Your task to perform on an android device: open app "Reddit" (install if not already installed) Image 0: 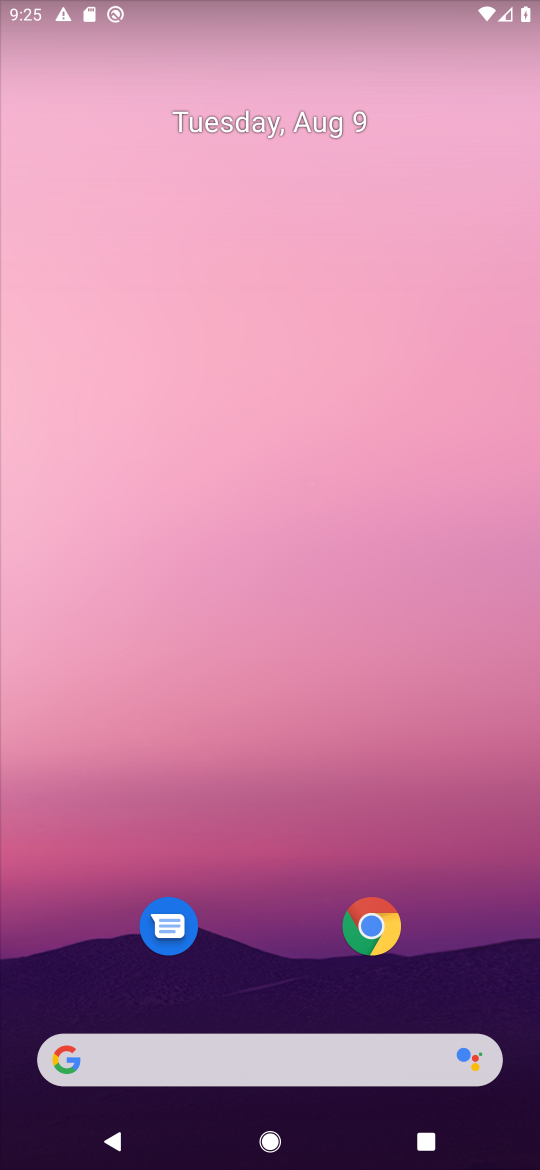
Step 0: drag from (237, 961) to (283, 2)
Your task to perform on an android device: open app "Reddit" (install if not already installed) Image 1: 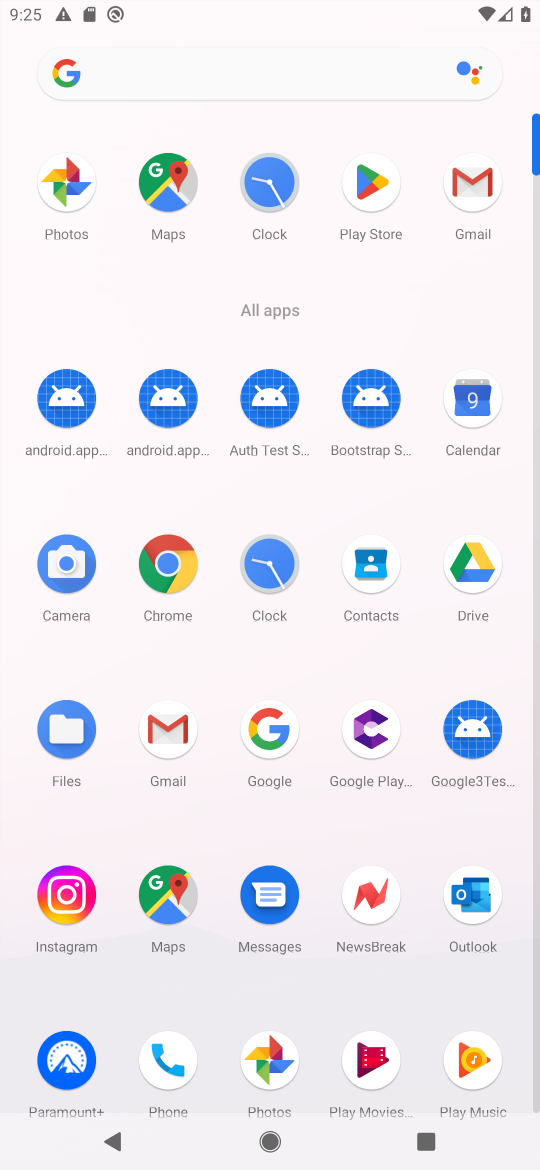
Step 1: click (381, 200)
Your task to perform on an android device: open app "Reddit" (install if not already installed) Image 2: 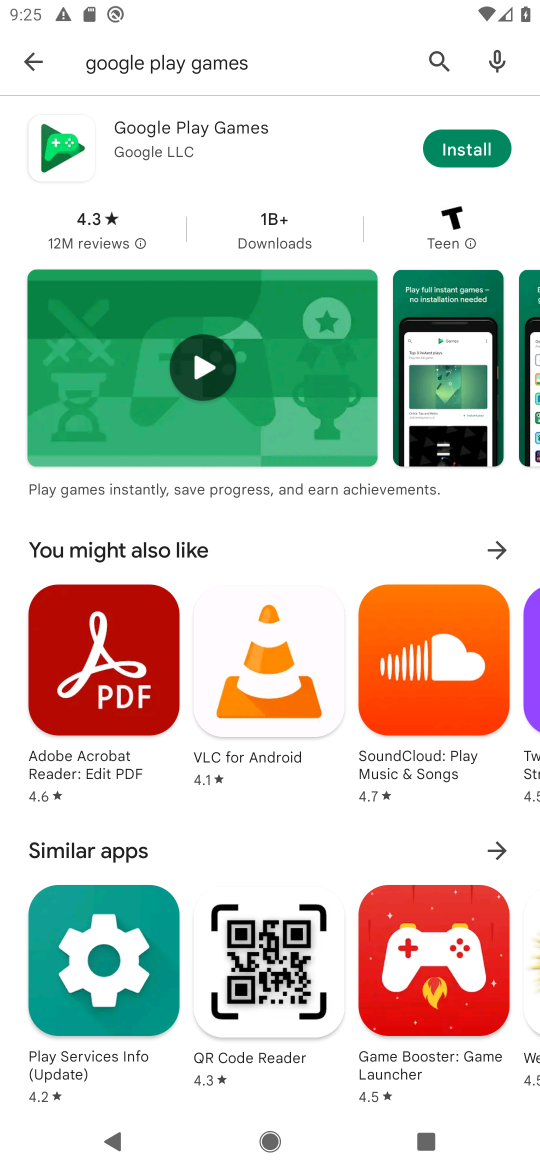
Step 2: click (195, 53)
Your task to perform on an android device: open app "Reddit" (install if not already installed) Image 3: 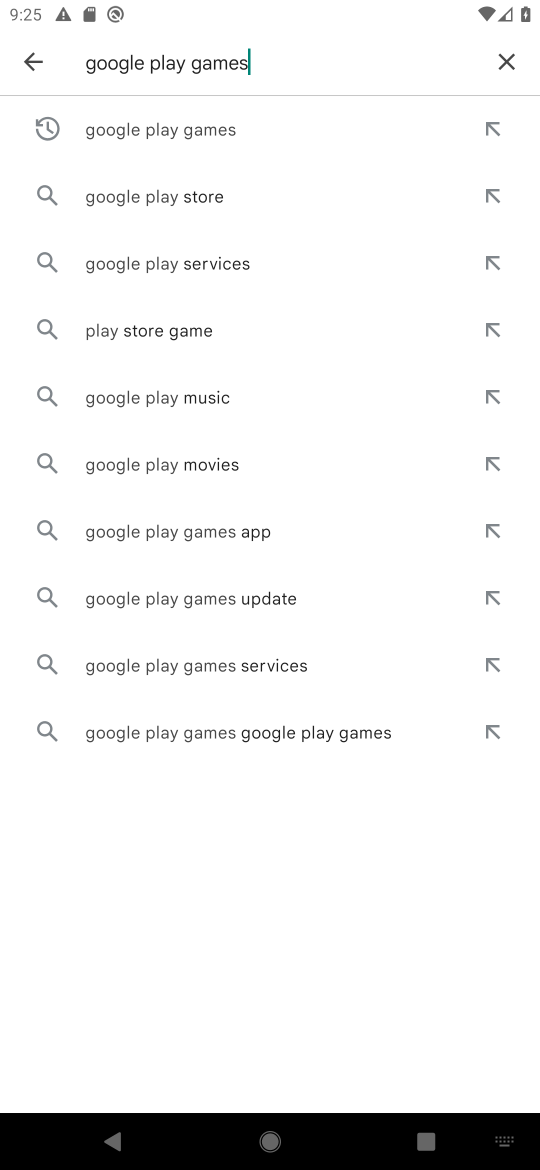
Step 3: click (502, 58)
Your task to perform on an android device: open app "Reddit" (install if not already installed) Image 4: 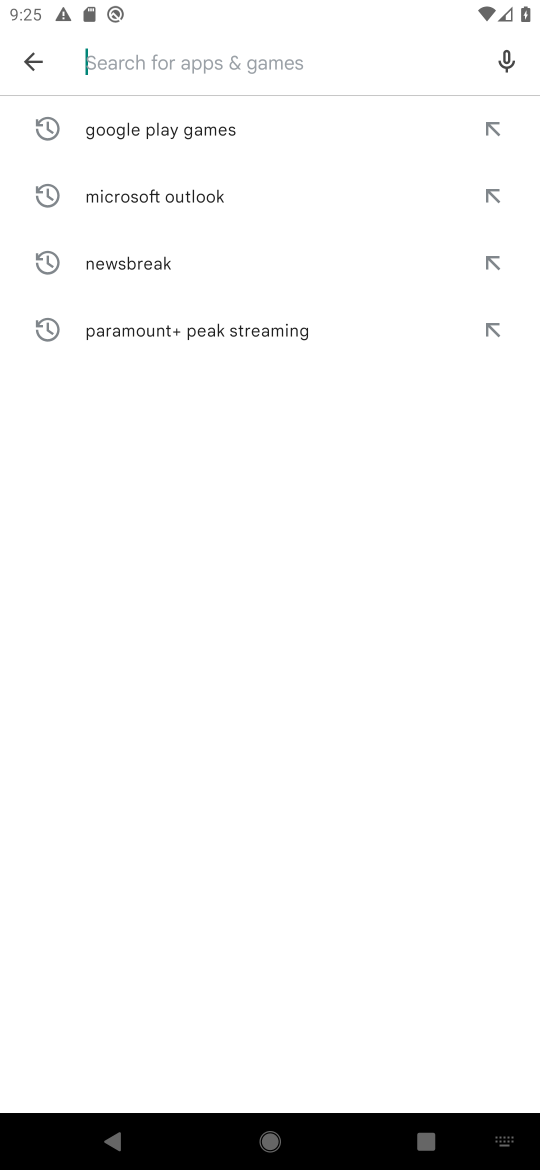
Step 4: type "Reddit"
Your task to perform on an android device: open app "Reddit" (install if not already installed) Image 5: 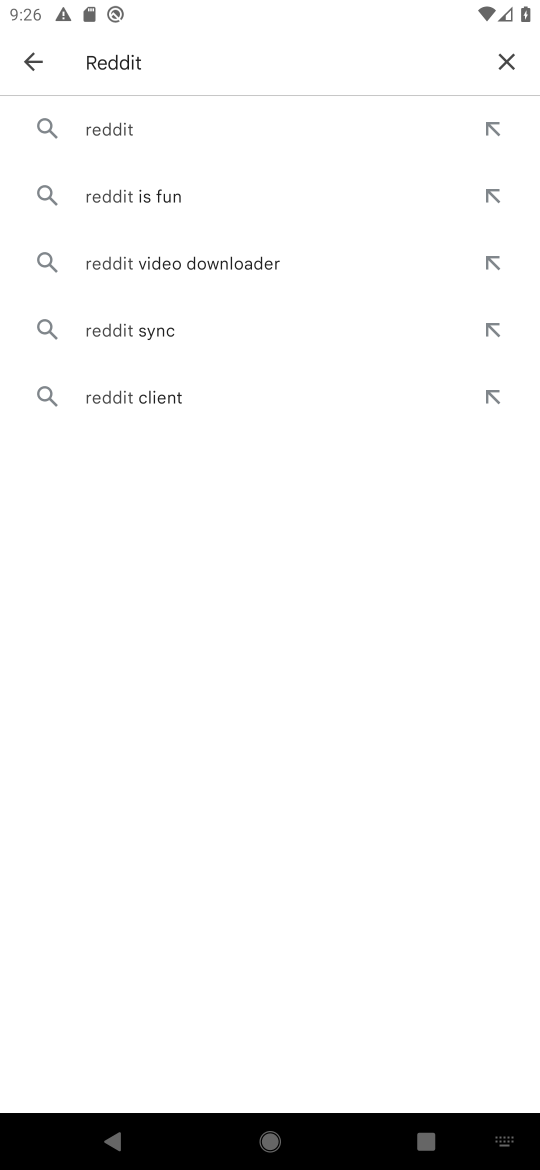
Step 5: click (134, 122)
Your task to perform on an android device: open app "Reddit" (install if not already installed) Image 6: 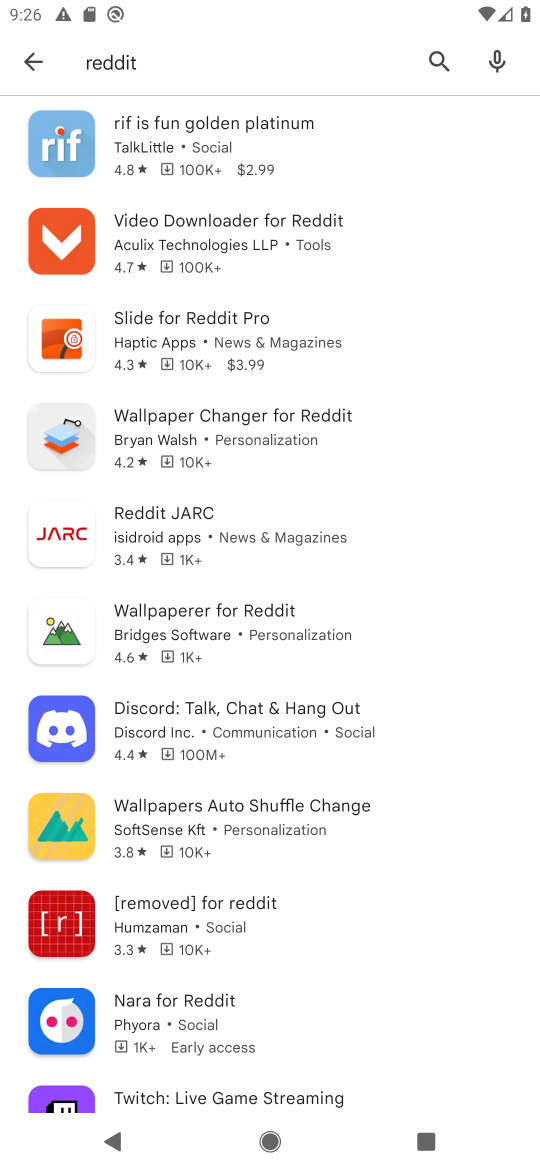
Step 6: task complete